Your task to perform on an android device: turn on the 24-hour format for clock Image 0: 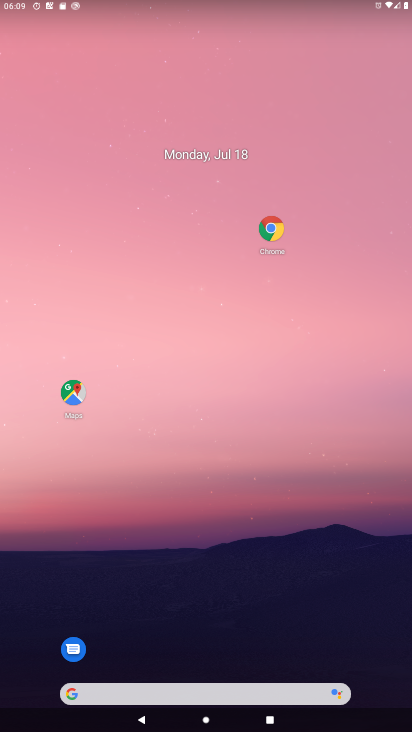
Step 0: drag from (183, 618) to (154, 142)
Your task to perform on an android device: turn on the 24-hour format for clock Image 1: 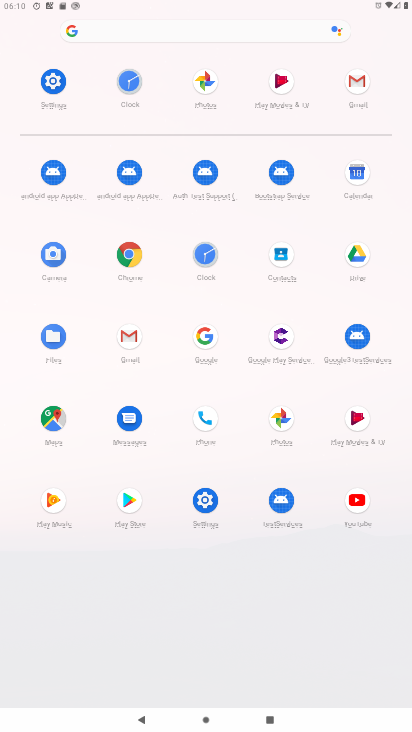
Step 1: click (211, 499)
Your task to perform on an android device: turn on the 24-hour format for clock Image 2: 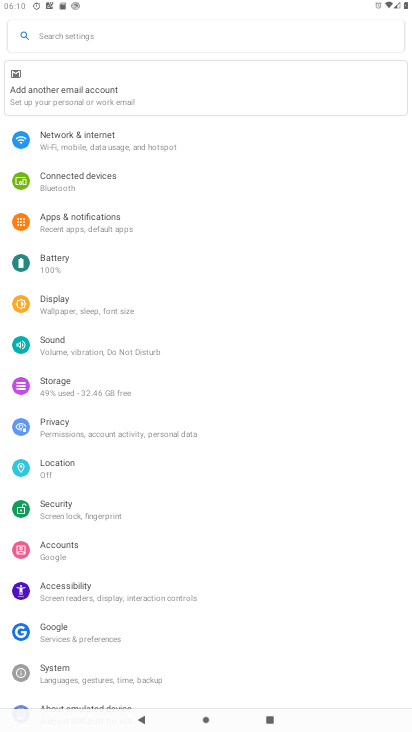
Step 2: drag from (92, 609) to (82, 174)
Your task to perform on an android device: turn on the 24-hour format for clock Image 3: 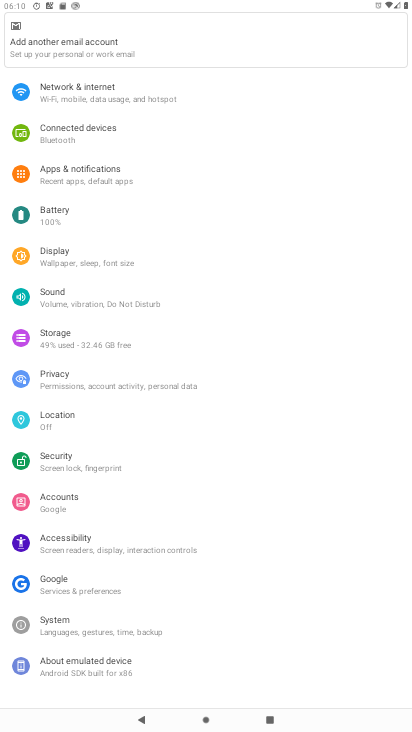
Step 3: press home button
Your task to perform on an android device: turn on the 24-hour format for clock Image 4: 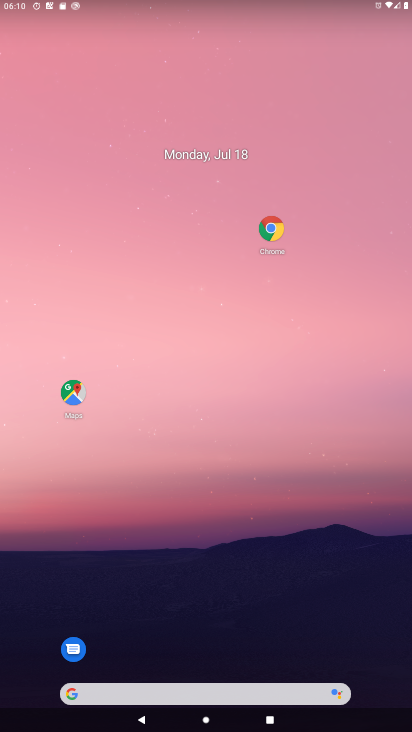
Step 4: drag from (179, 629) to (152, 155)
Your task to perform on an android device: turn on the 24-hour format for clock Image 5: 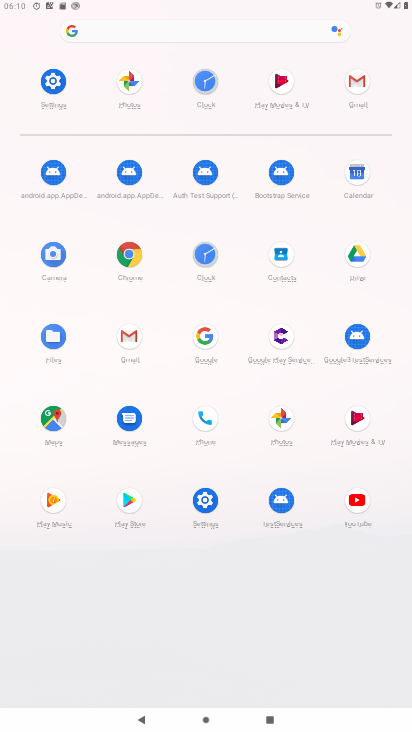
Step 5: click (206, 88)
Your task to perform on an android device: turn on the 24-hour format for clock Image 6: 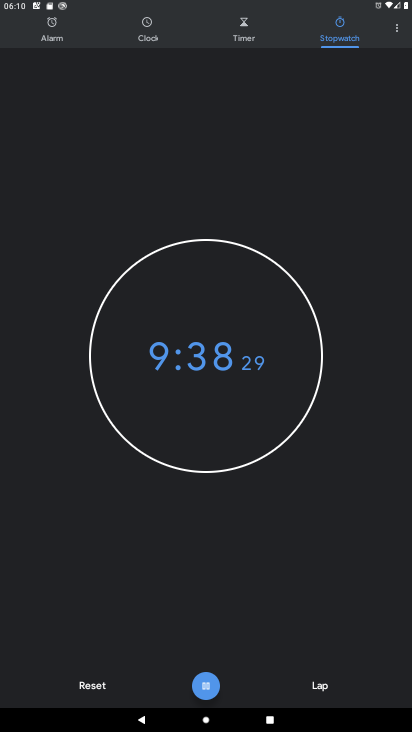
Step 6: click (399, 37)
Your task to perform on an android device: turn on the 24-hour format for clock Image 7: 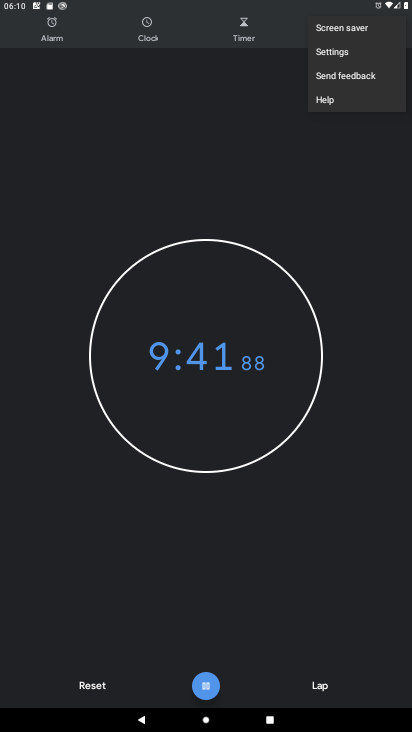
Step 7: click (360, 60)
Your task to perform on an android device: turn on the 24-hour format for clock Image 8: 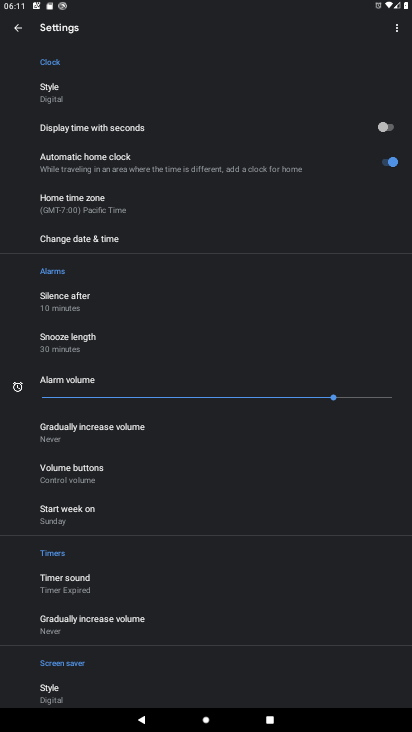
Step 8: click (174, 239)
Your task to perform on an android device: turn on the 24-hour format for clock Image 9: 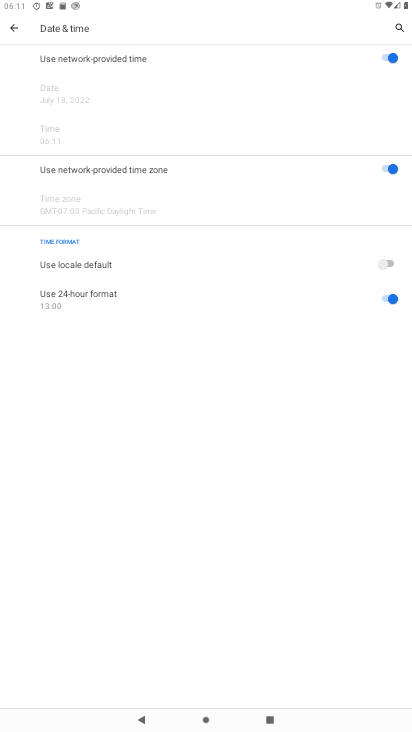
Step 9: task complete